Your task to perform on an android device: Go to Reddit.com Image 0: 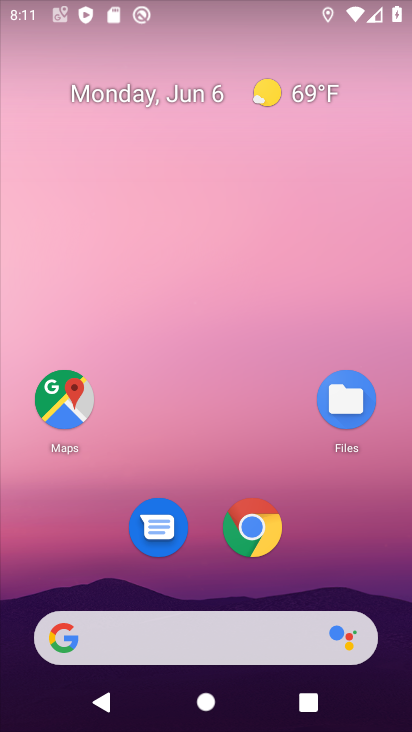
Step 0: drag from (328, 536) to (309, 9)
Your task to perform on an android device: Go to Reddit.com Image 1: 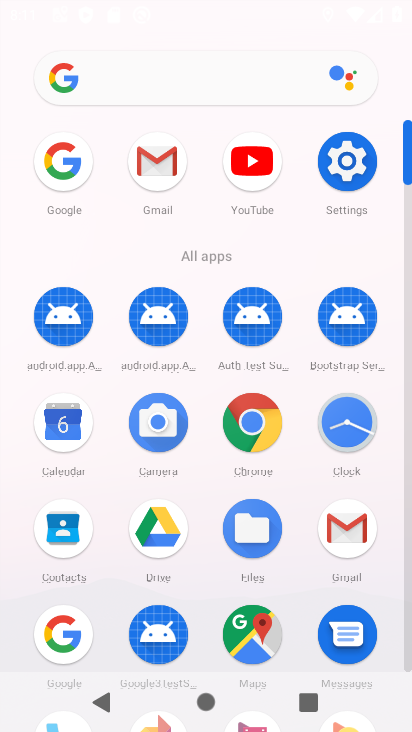
Step 1: click (67, 635)
Your task to perform on an android device: Go to Reddit.com Image 2: 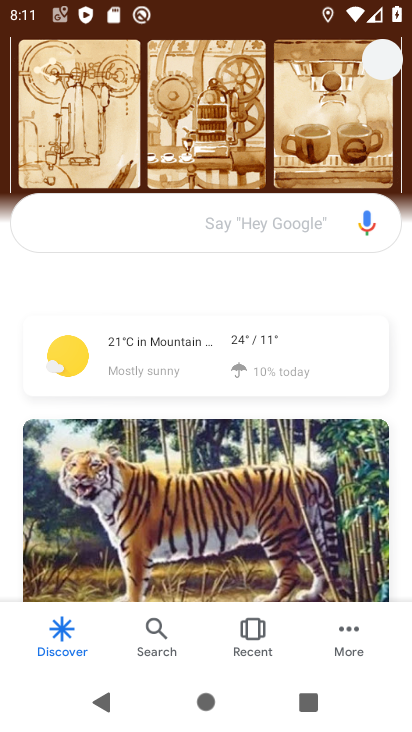
Step 2: click (173, 201)
Your task to perform on an android device: Go to Reddit.com Image 3: 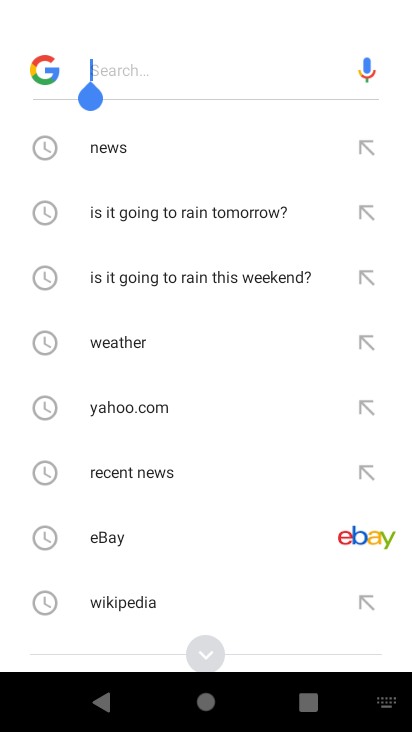
Step 3: drag from (209, 428) to (210, 206)
Your task to perform on an android device: Go to Reddit.com Image 4: 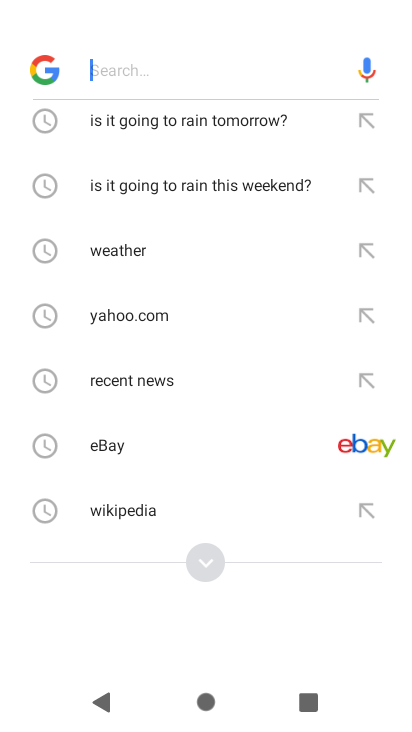
Step 4: click (206, 566)
Your task to perform on an android device: Go to Reddit.com Image 5: 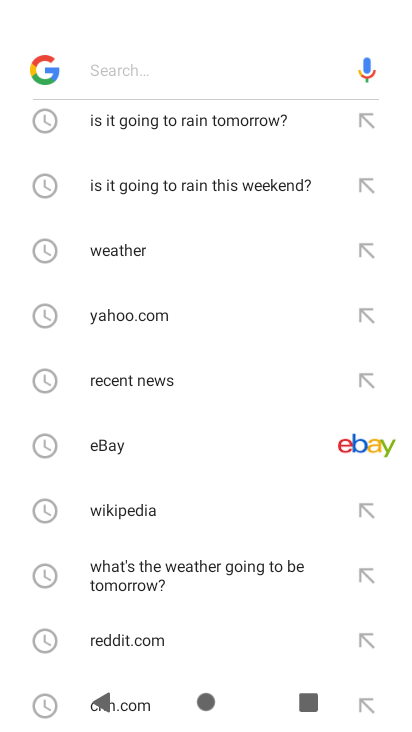
Step 5: drag from (222, 572) to (223, 393)
Your task to perform on an android device: Go to Reddit.com Image 6: 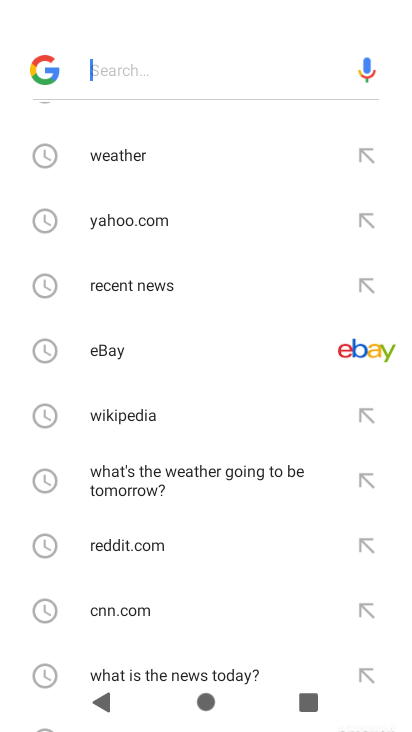
Step 6: click (148, 535)
Your task to perform on an android device: Go to Reddit.com Image 7: 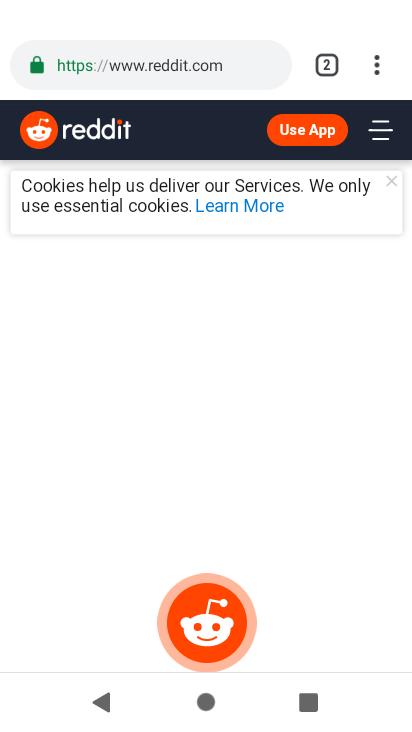
Step 7: task complete